Your task to perform on an android device: make emails show in primary in the gmail app Image 0: 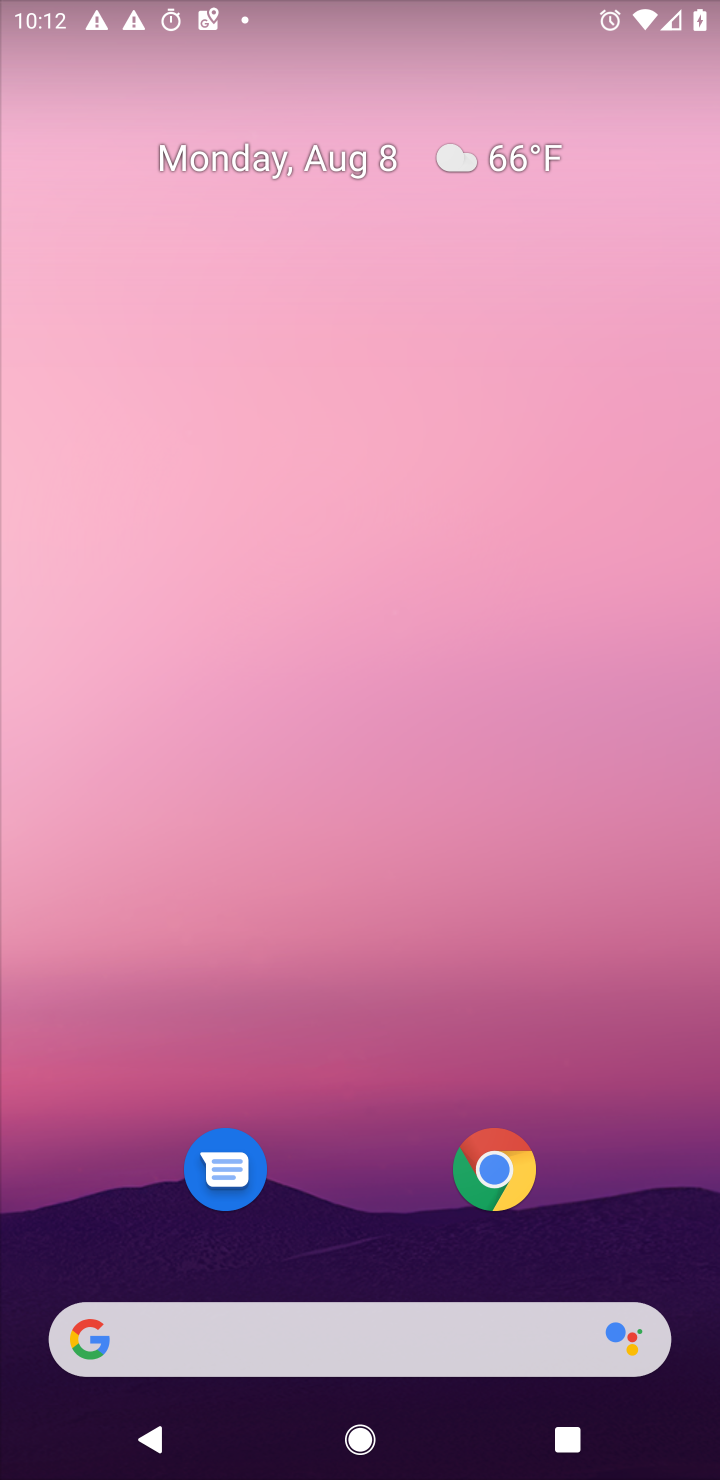
Step 0: drag from (374, 1237) to (549, 314)
Your task to perform on an android device: make emails show in primary in the gmail app Image 1: 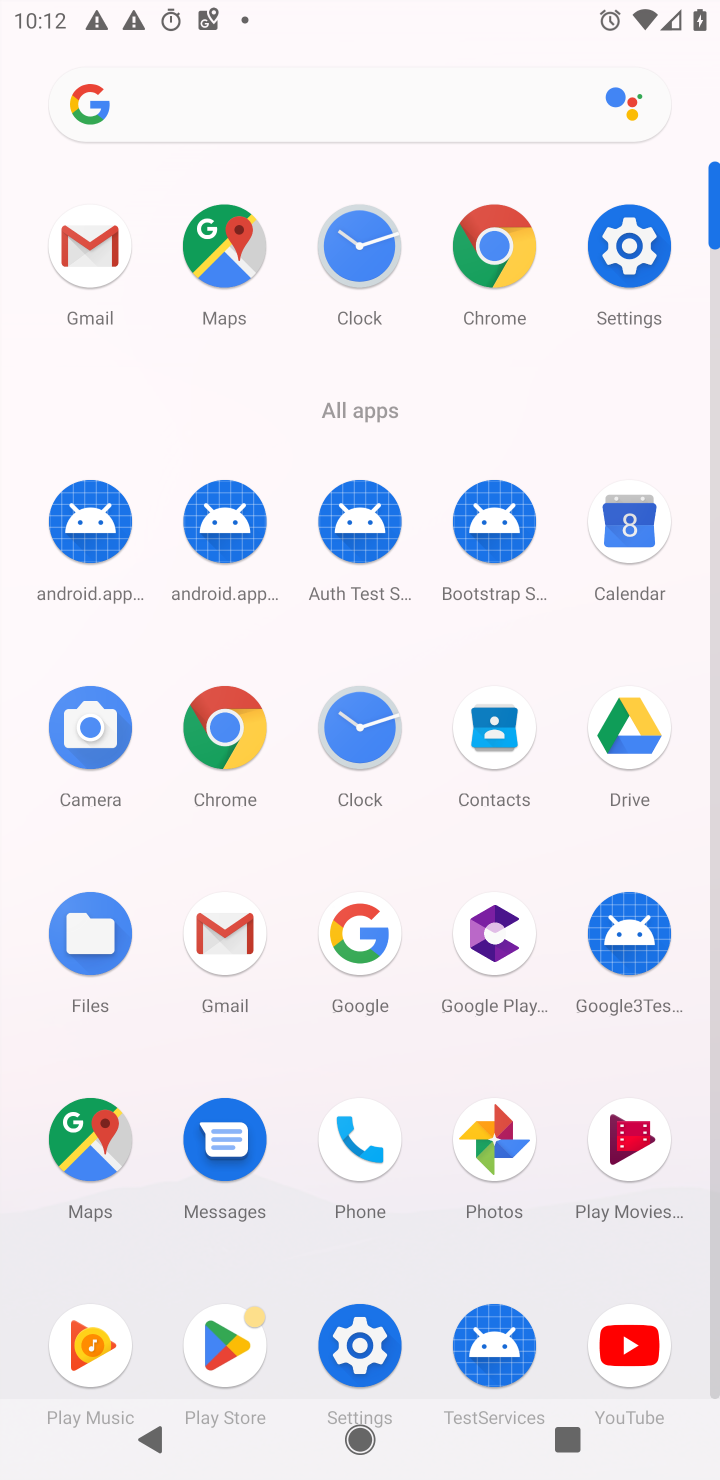
Step 1: click (104, 239)
Your task to perform on an android device: make emails show in primary in the gmail app Image 2: 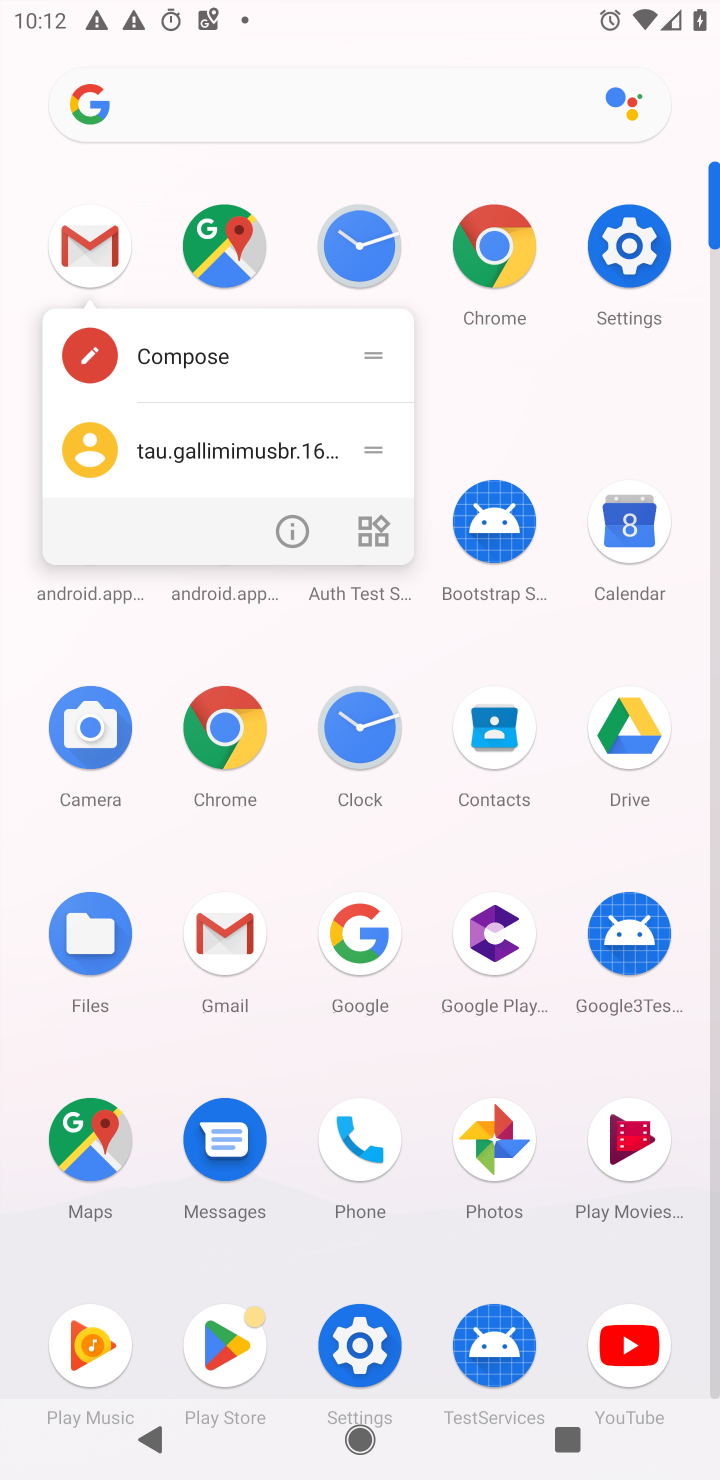
Step 2: click (86, 242)
Your task to perform on an android device: make emails show in primary in the gmail app Image 3: 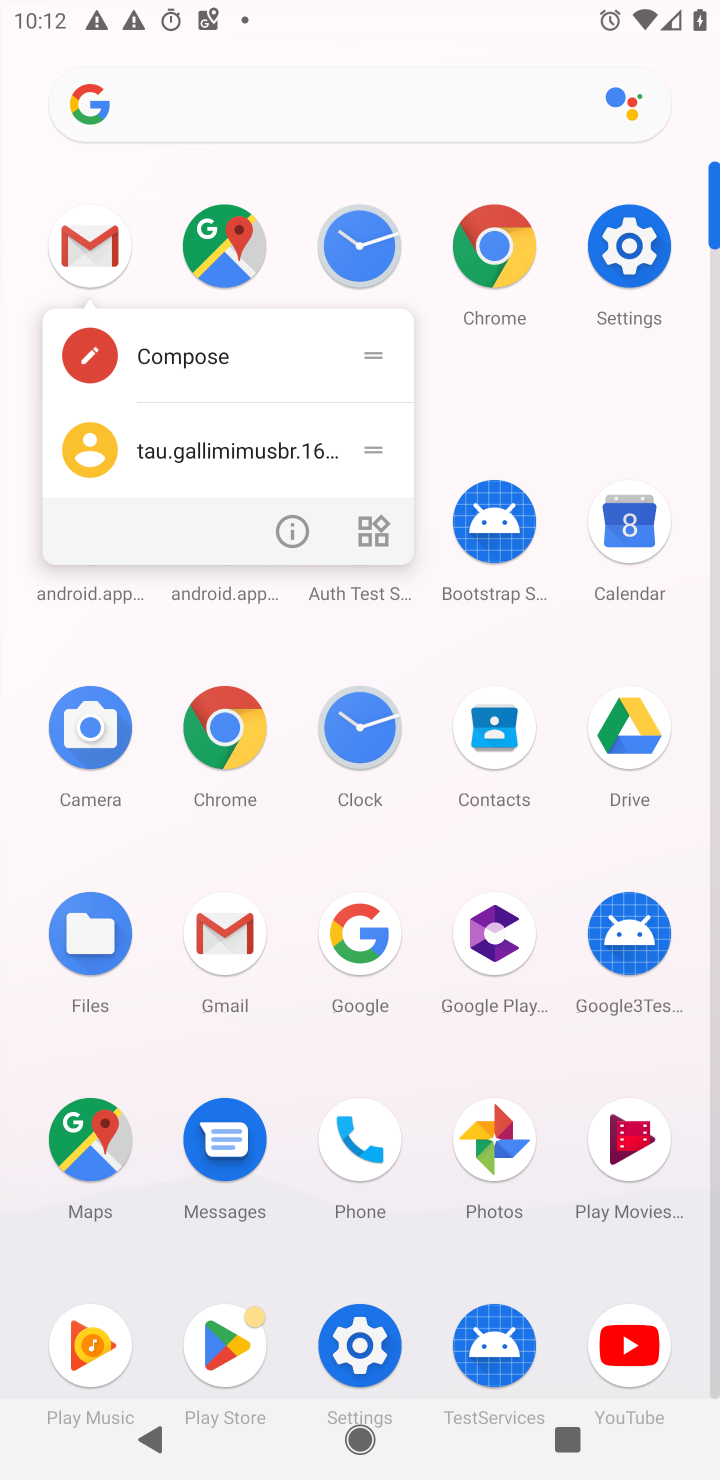
Step 3: click (92, 240)
Your task to perform on an android device: make emails show in primary in the gmail app Image 4: 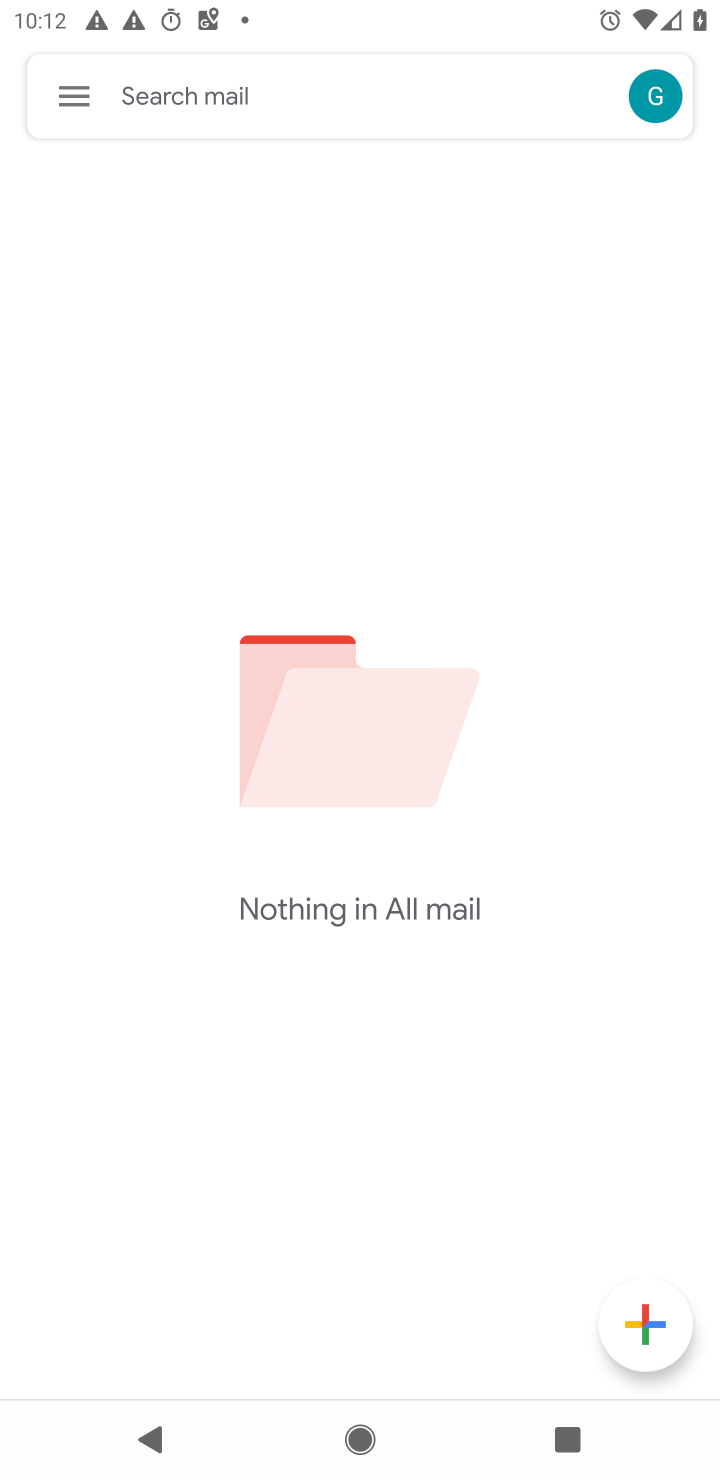
Step 4: click (77, 88)
Your task to perform on an android device: make emails show in primary in the gmail app Image 5: 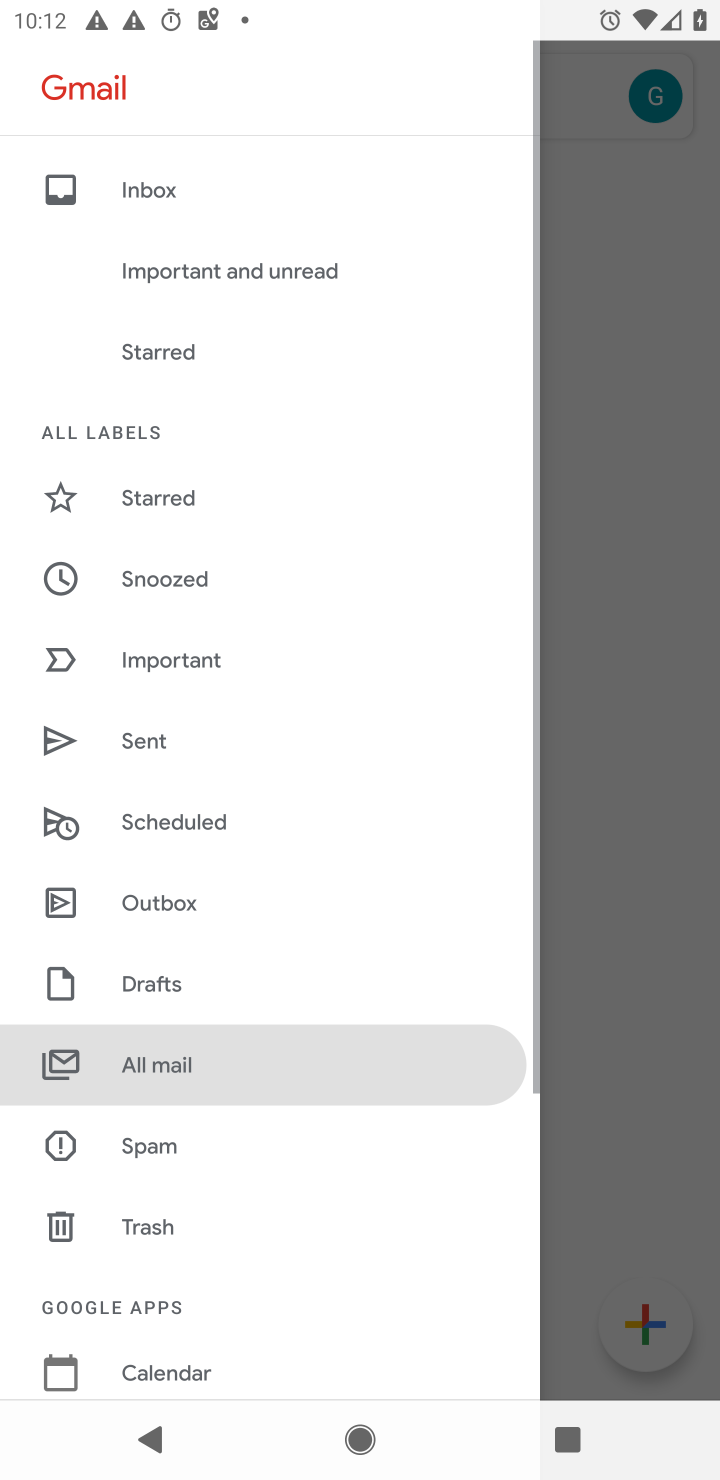
Step 5: drag from (167, 1199) to (385, 152)
Your task to perform on an android device: make emails show in primary in the gmail app Image 6: 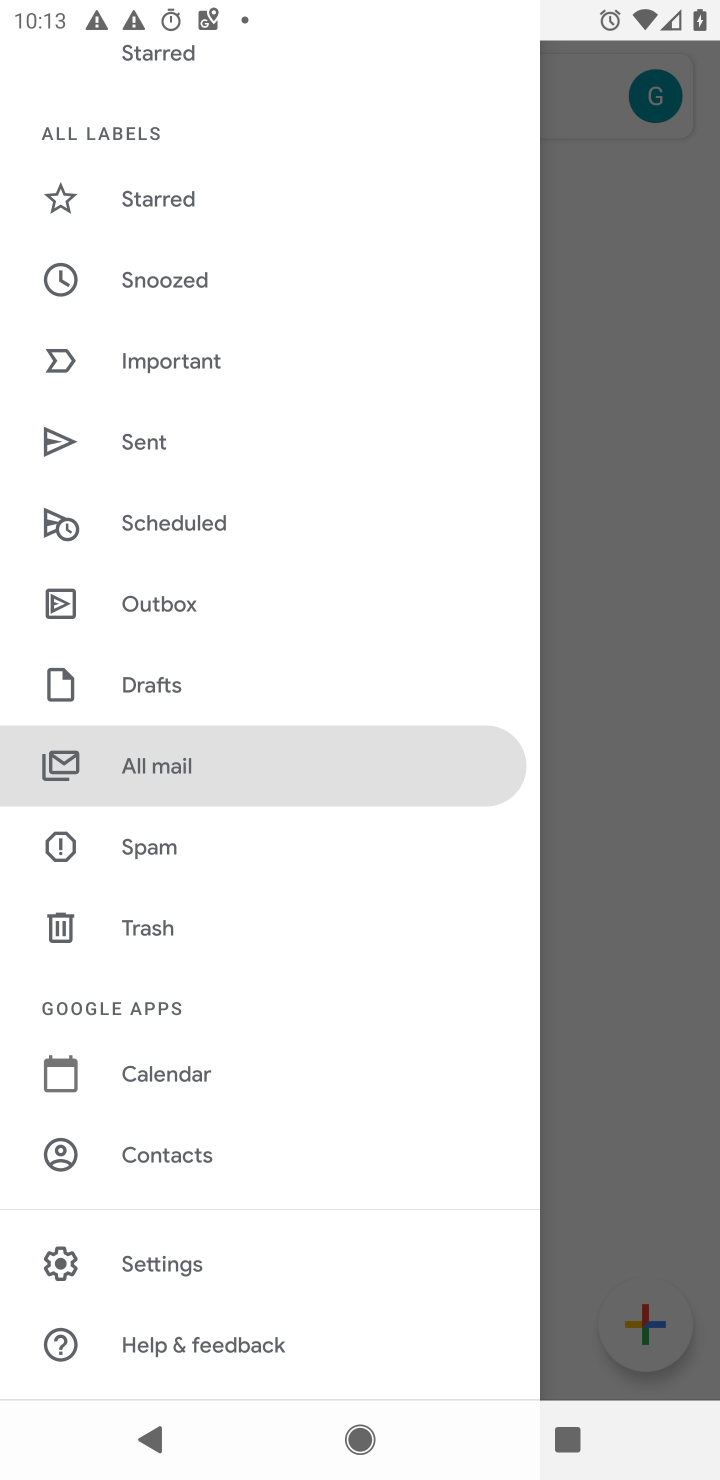
Step 6: click (149, 1258)
Your task to perform on an android device: make emails show in primary in the gmail app Image 7: 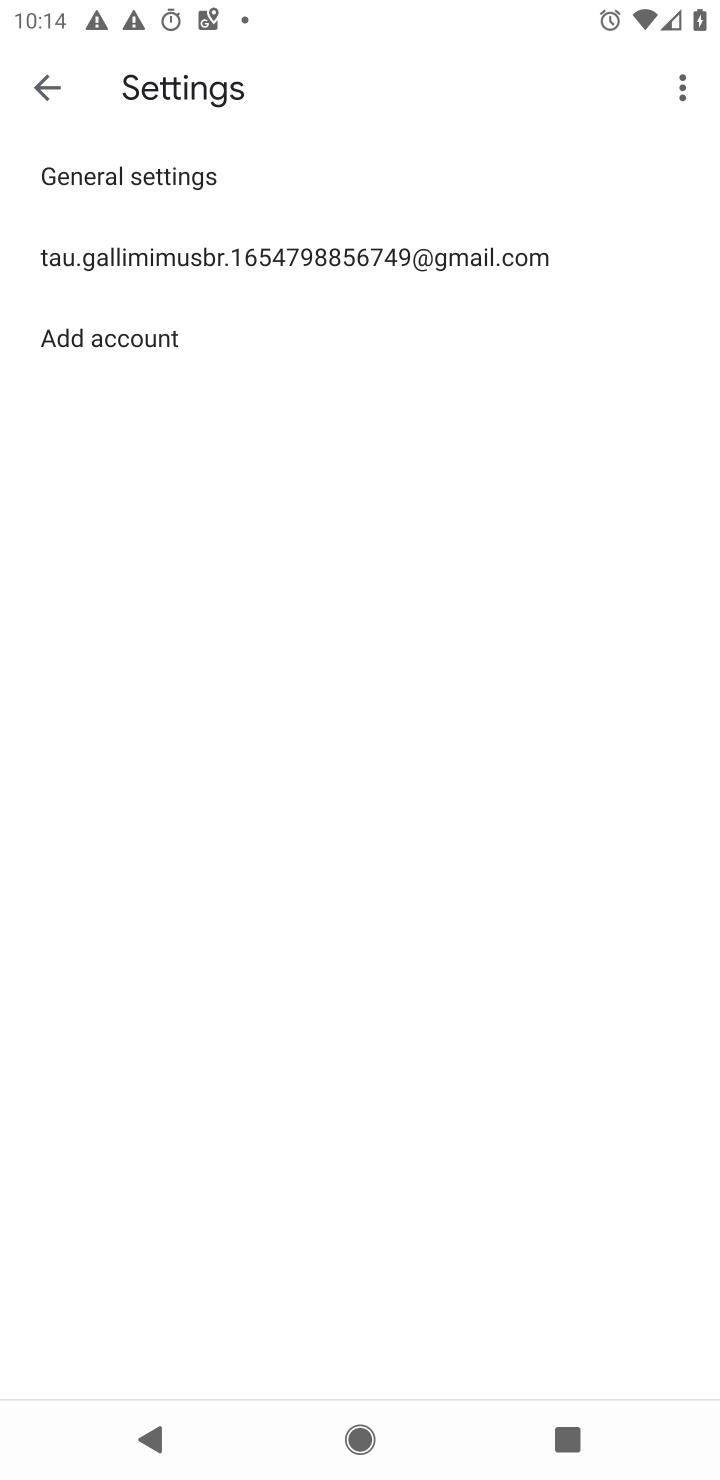
Step 7: click (179, 254)
Your task to perform on an android device: make emails show in primary in the gmail app Image 8: 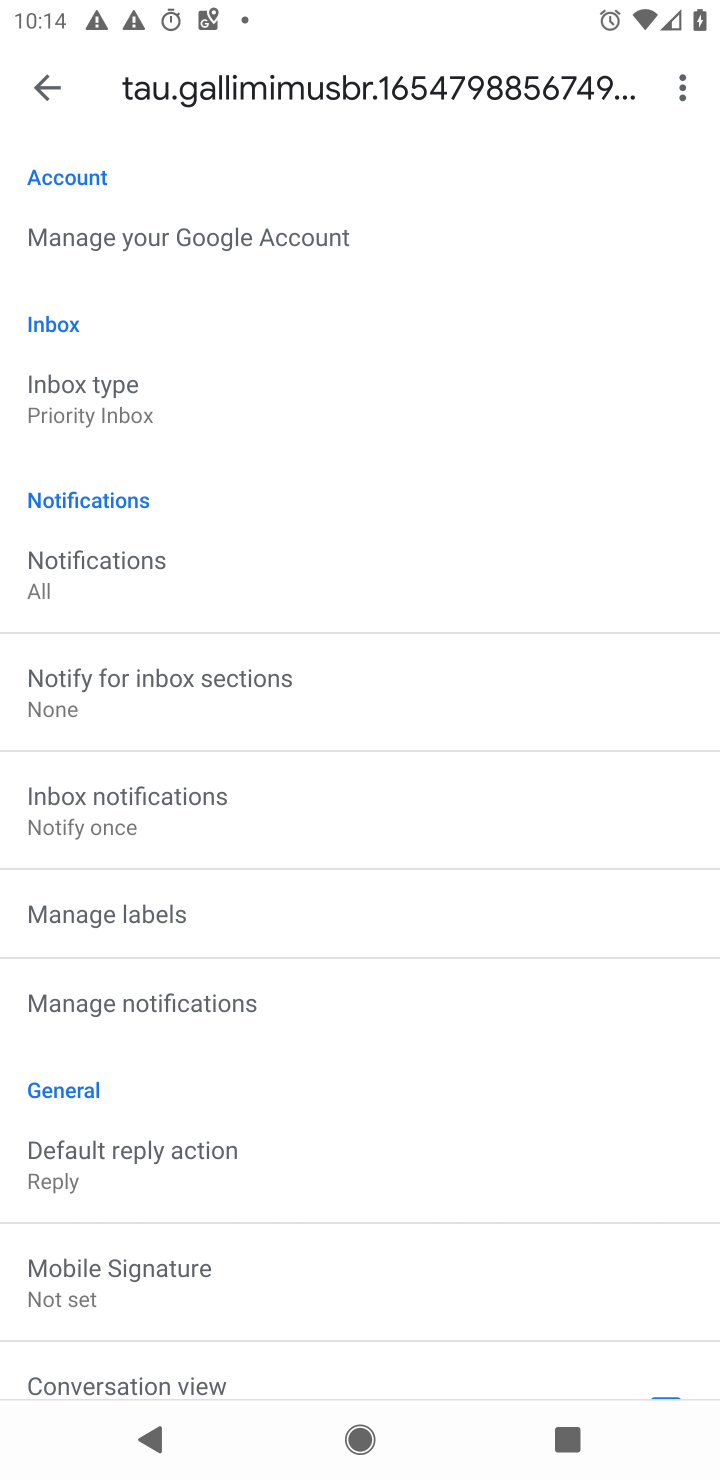
Step 8: task complete